Your task to perform on an android device: Go to Google maps Image 0: 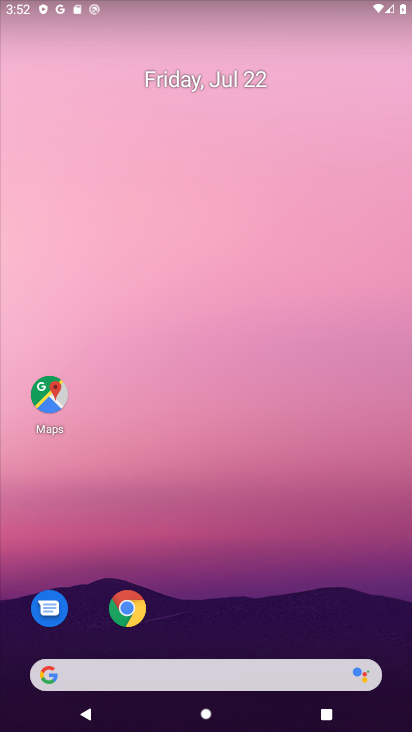
Step 0: drag from (309, 656) to (325, 38)
Your task to perform on an android device: Go to Google maps Image 1: 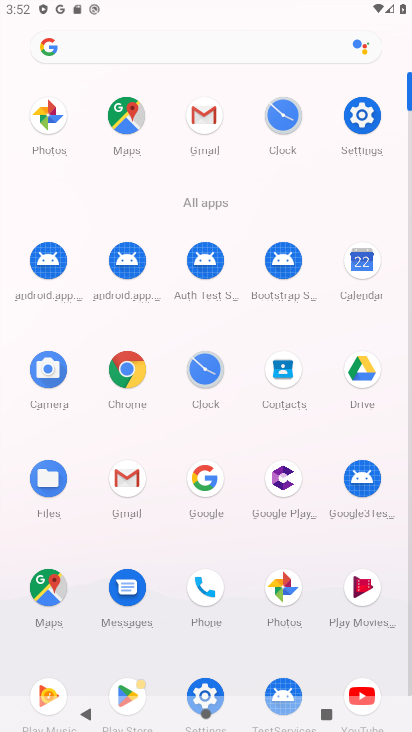
Step 1: click (59, 600)
Your task to perform on an android device: Go to Google maps Image 2: 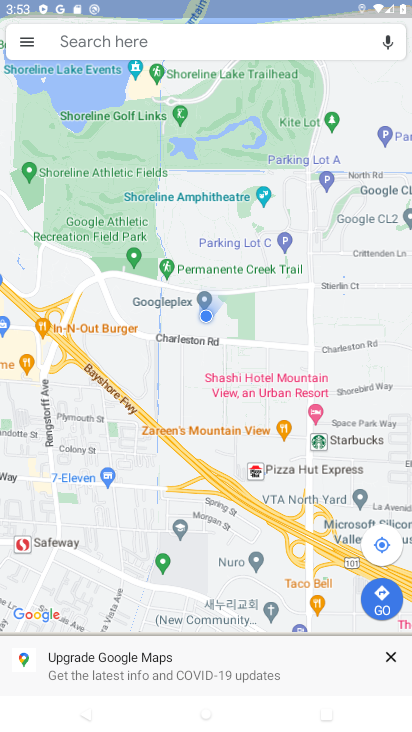
Step 2: task complete